Your task to perform on an android device: Is it going to rain this weekend? Image 0: 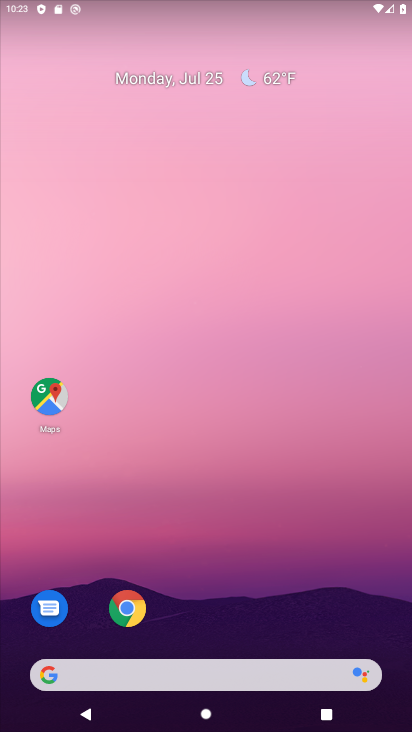
Step 0: drag from (209, 656) to (216, 203)
Your task to perform on an android device: Is it going to rain this weekend? Image 1: 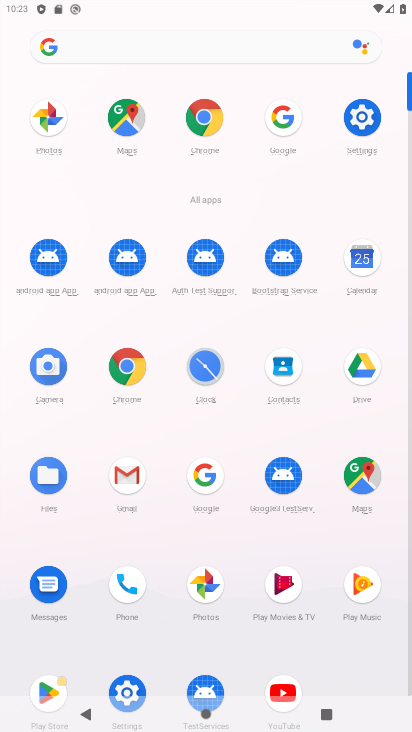
Step 1: click (206, 479)
Your task to perform on an android device: Is it going to rain this weekend? Image 2: 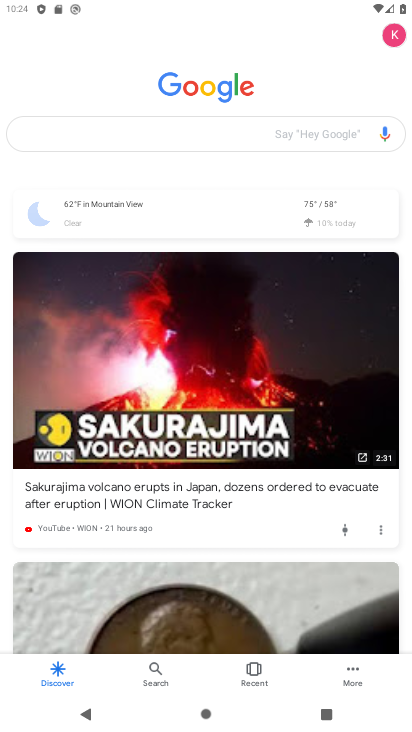
Step 2: click (160, 124)
Your task to perform on an android device: Is it going to rain this weekend? Image 3: 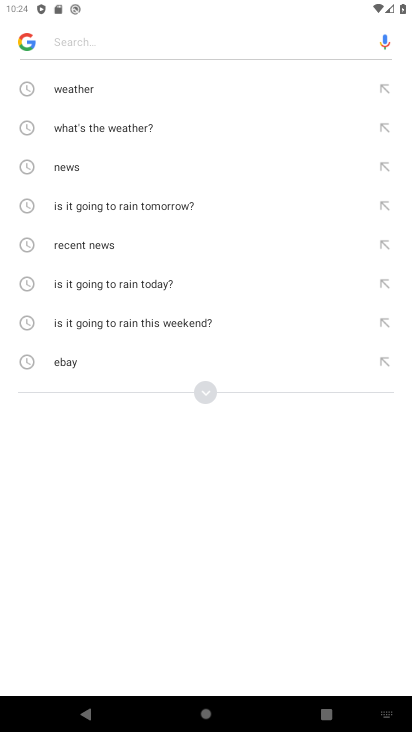
Step 3: click (205, 390)
Your task to perform on an android device: Is it going to rain this weekend? Image 4: 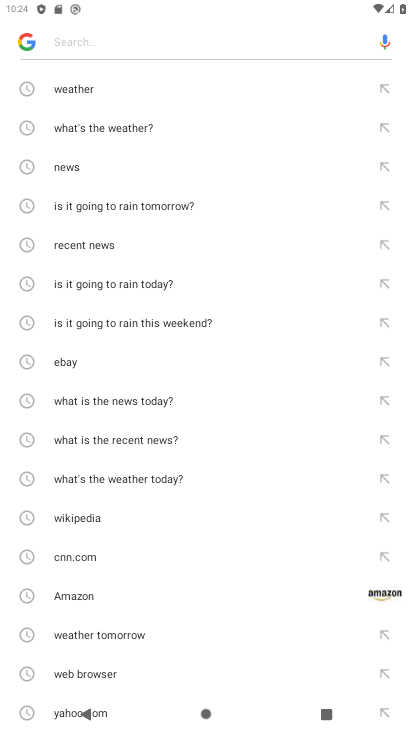
Step 4: click (133, 318)
Your task to perform on an android device: Is it going to rain this weekend? Image 5: 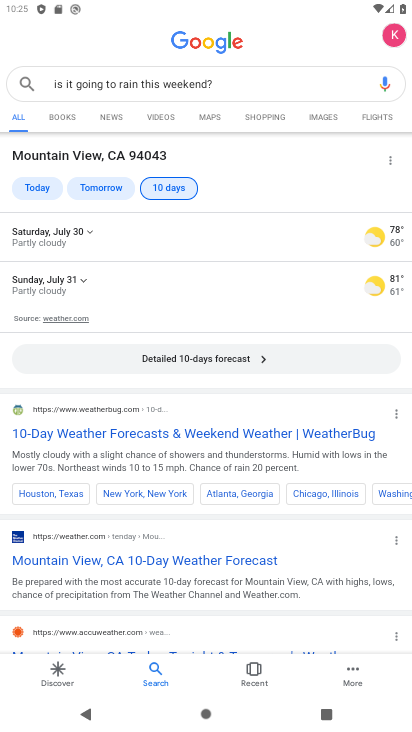
Step 5: click (189, 352)
Your task to perform on an android device: Is it going to rain this weekend? Image 6: 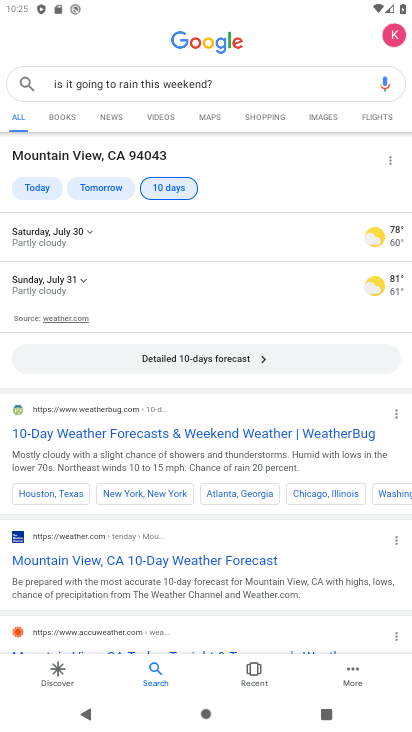
Step 6: click (196, 363)
Your task to perform on an android device: Is it going to rain this weekend? Image 7: 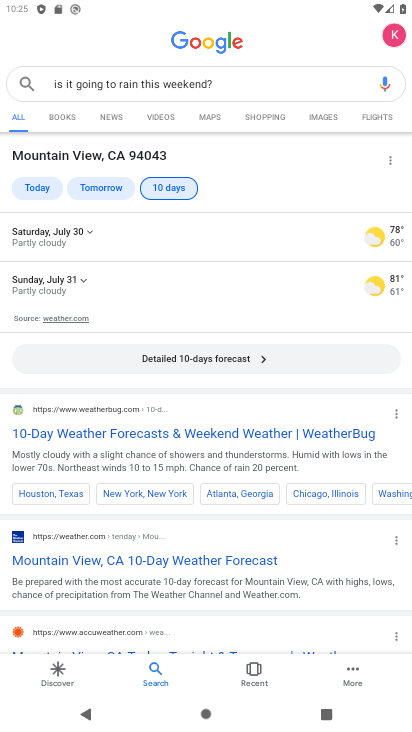
Step 7: task complete